Your task to perform on an android device: Open Google Maps and go to "Timeline" Image 0: 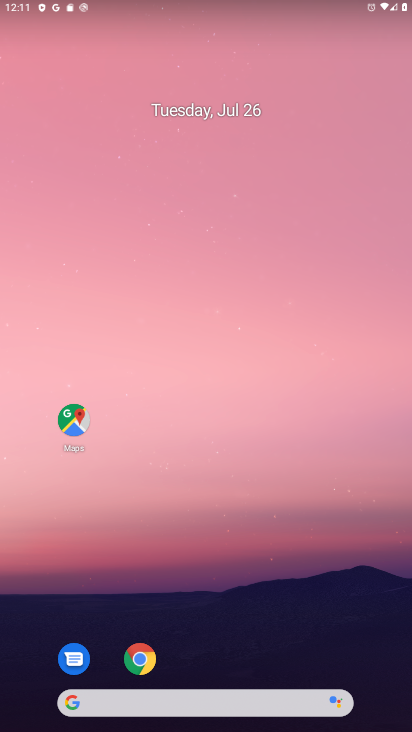
Step 0: click (67, 422)
Your task to perform on an android device: Open Google Maps and go to "Timeline" Image 1: 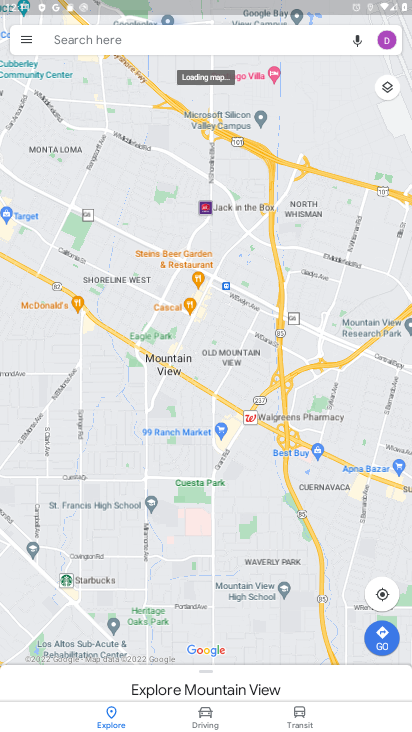
Step 1: click (24, 50)
Your task to perform on an android device: Open Google Maps and go to "Timeline" Image 2: 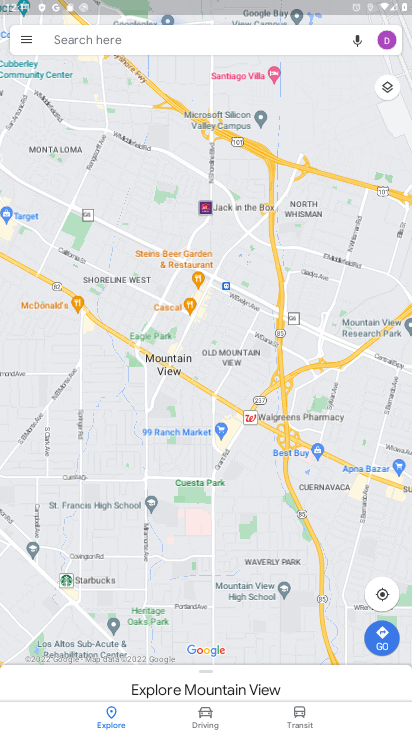
Step 2: click (22, 35)
Your task to perform on an android device: Open Google Maps and go to "Timeline" Image 3: 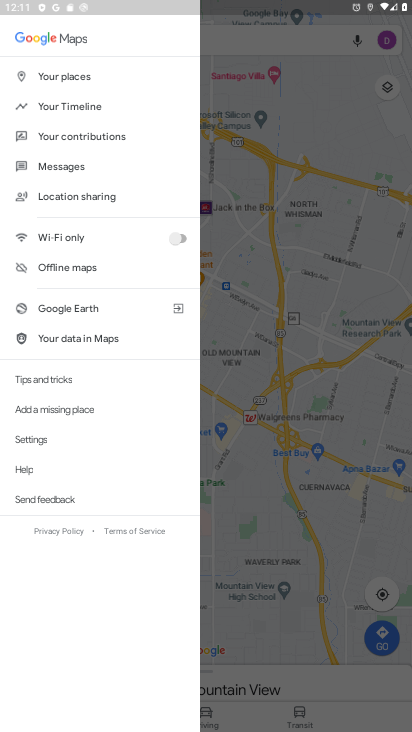
Step 3: click (22, 35)
Your task to perform on an android device: Open Google Maps and go to "Timeline" Image 4: 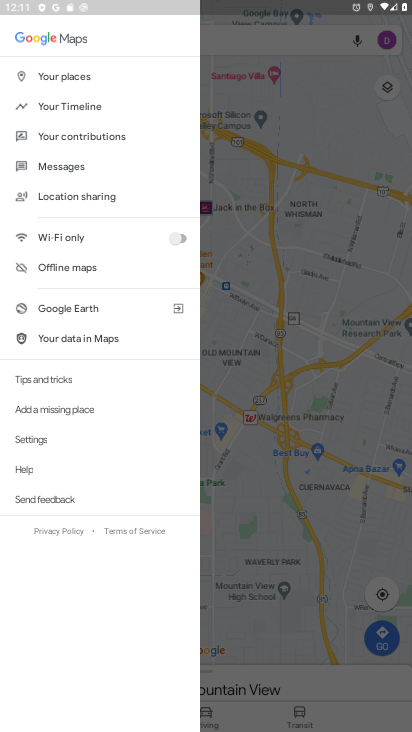
Step 4: click (79, 105)
Your task to perform on an android device: Open Google Maps and go to "Timeline" Image 5: 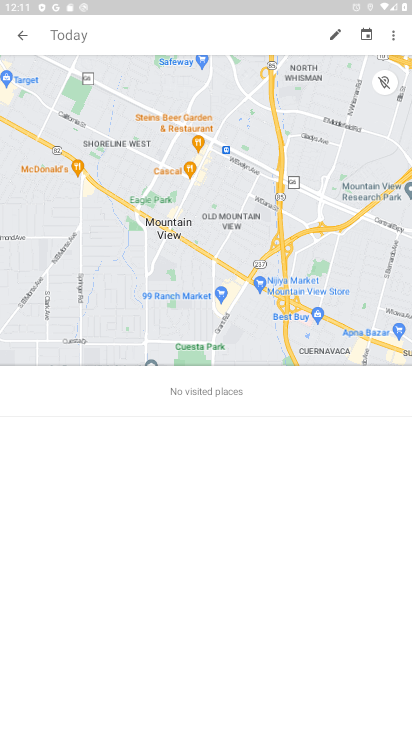
Step 5: task complete